Your task to perform on an android device: turn on showing notifications on the lock screen Image 0: 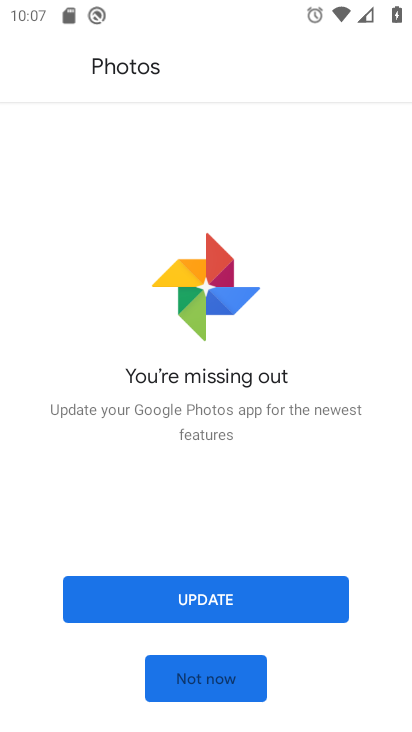
Step 0: press home button
Your task to perform on an android device: turn on showing notifications on the lock screen Image 1: 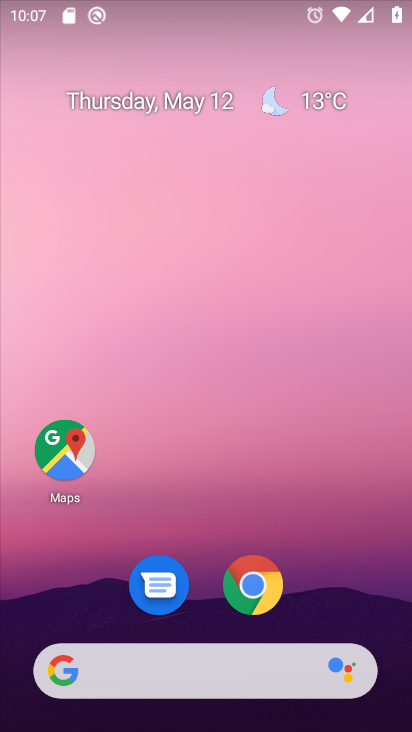
Step 1: drag from (229, 491) to (217, 45)
Your task to perform on an android device: turn on showing notifications on the lock screen Image 2: 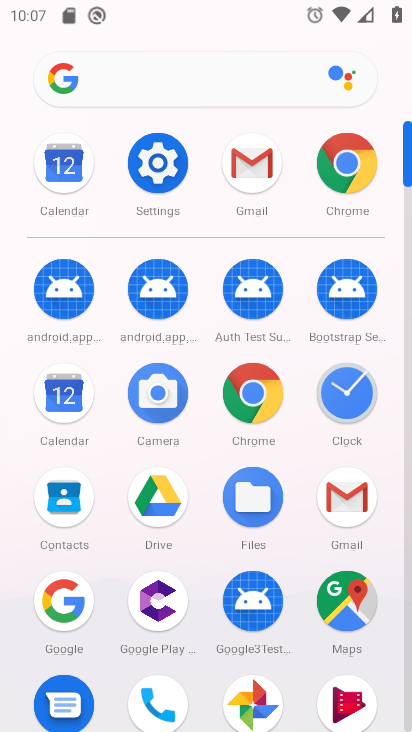
Step 2: click (165, 151)
Your task to perform on an android device: turn on showing notifications on the lock screen Image 3: 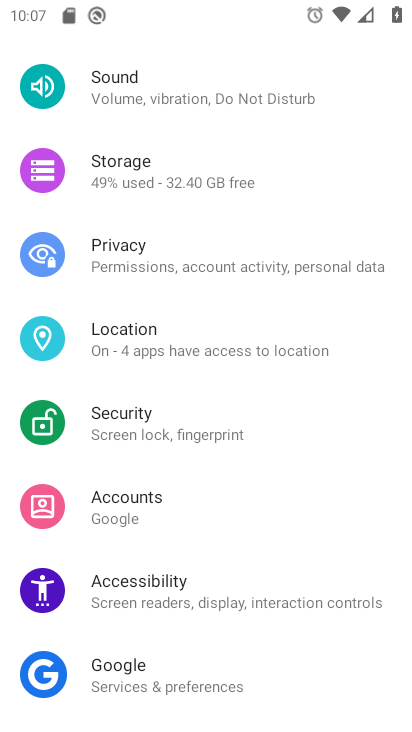
Step 3: drag from (213, 135) to (236, 731)
Your task to perform on an android device: turn on showing notifications on the lock screen Image 4: 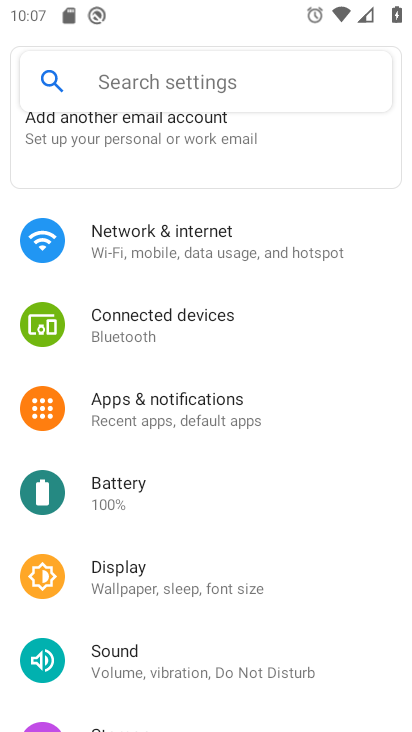
Step 4: click (180, 419)
Your task to perform on an android device: turn on showing notifications on the lock screen Image 5: 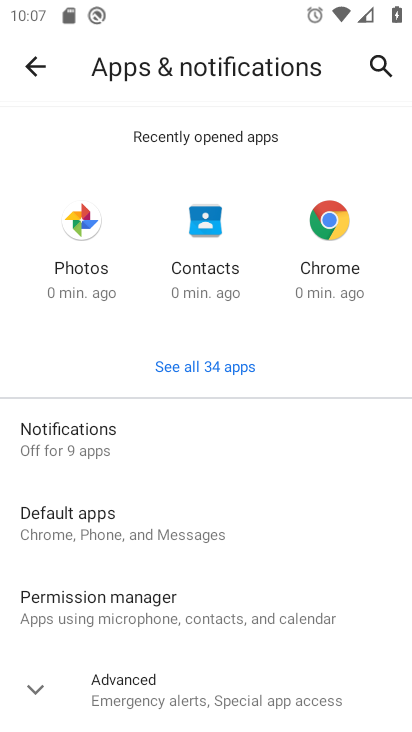
Step 5: click (188, 434)
Your task to perform on an android device: turn on showing notifications on the lock screen Image 6: 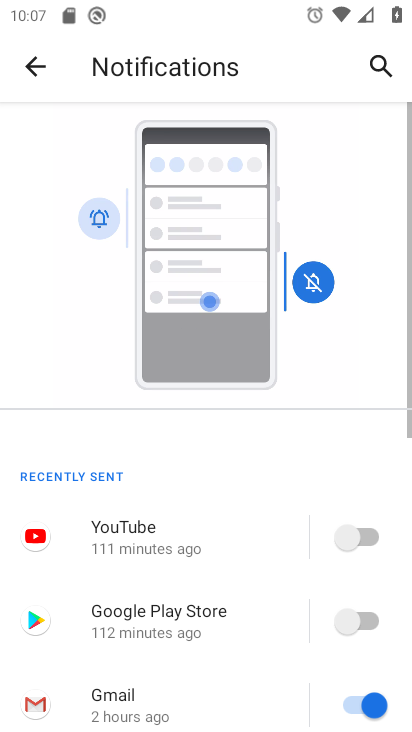
Step 6: task complete